Your task to perform on an android device: Open calendar and show me the fourth week of next month Image 0: 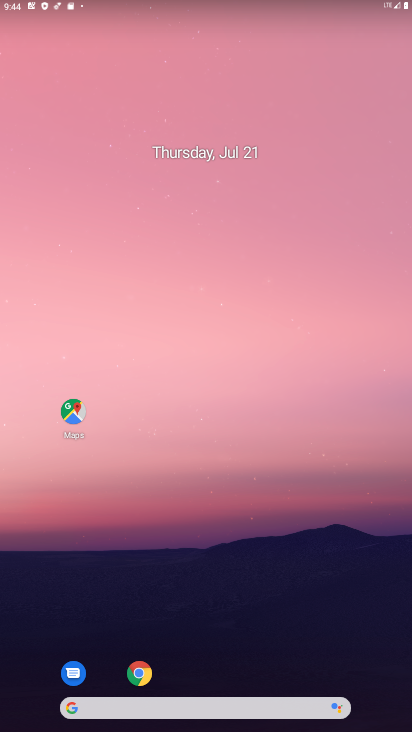
Step 0: drag from (213, 659) to (203, 143)
Your task to perform on an android device: Open calendar and show me the fourth week of next month Image 1: 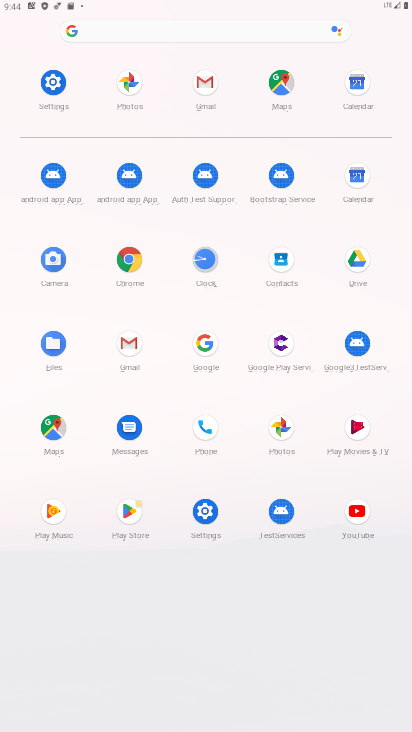
Step 1: click (341, 91)
Your task to perform on an android device: Open calendar and show me the fourth week of next month Image 2: 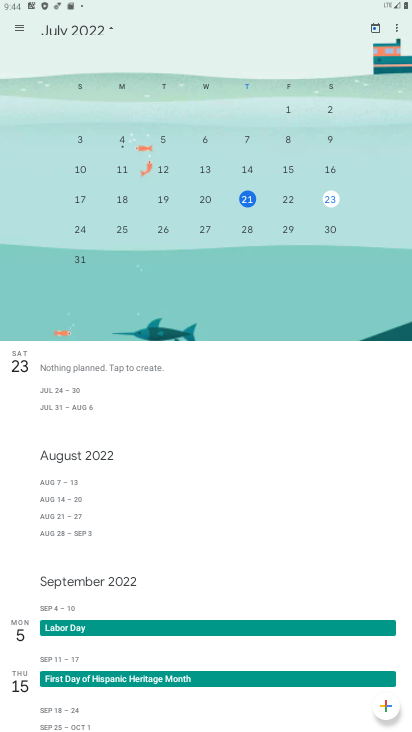
Step 2: drag from (357, 185) to (0, 200)
Your task to perform on an android device: Open calendar and show me the fourth week of next month Image 3: 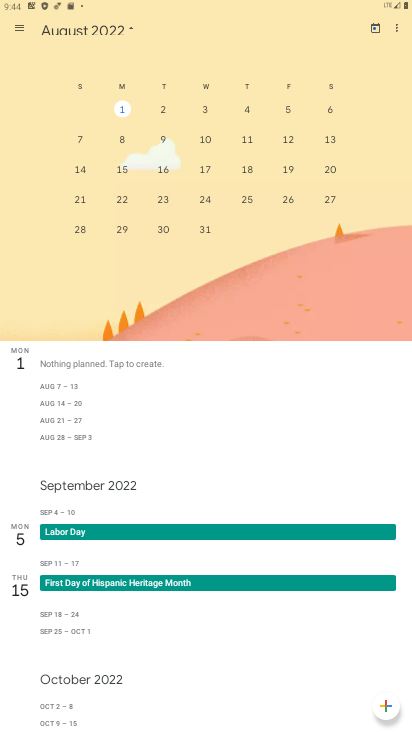
Step 3: click (76, 189)
Your task to perform on an android device: Open calendar and show me the fourth week of next month Image 4: 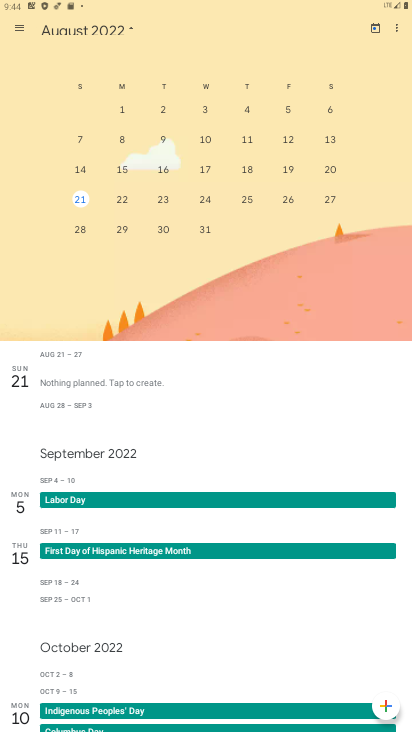
Step 4: task complete